Your task to perform on an android device: see sites visited before in the chrome app Image 0: 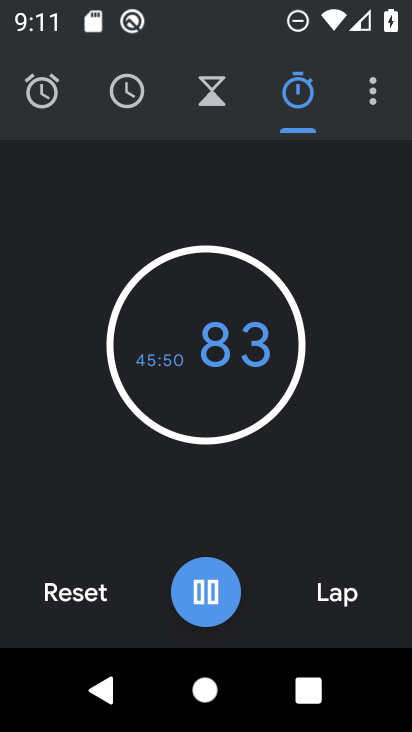
Step 0: press home button
Your task to perform on an android device: see sites visited before in the chrome app Image 1: 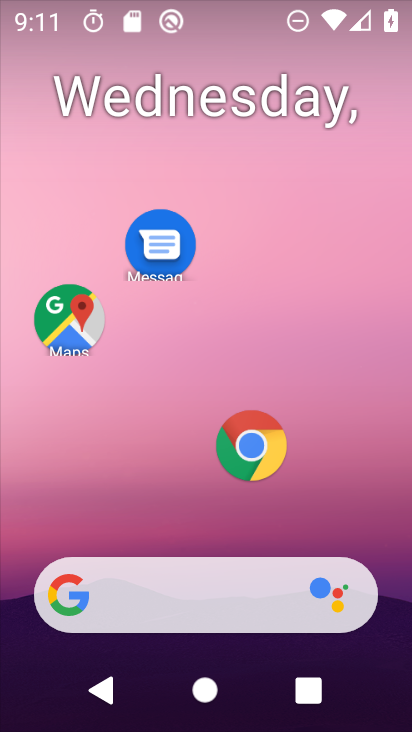
Step 1: click (249, 438)
Your task to perform on an android device: see sites visited before in the chrome app Image 2: 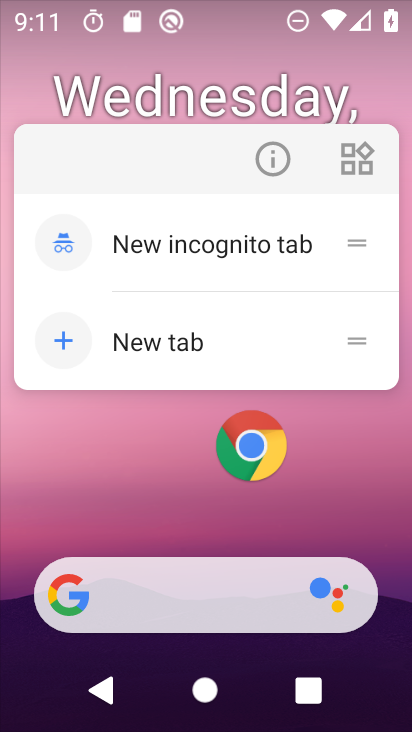
Step 2: click (253, 433)
Your task to perform on an android device: see sites visited before in the chrome app Image 3: 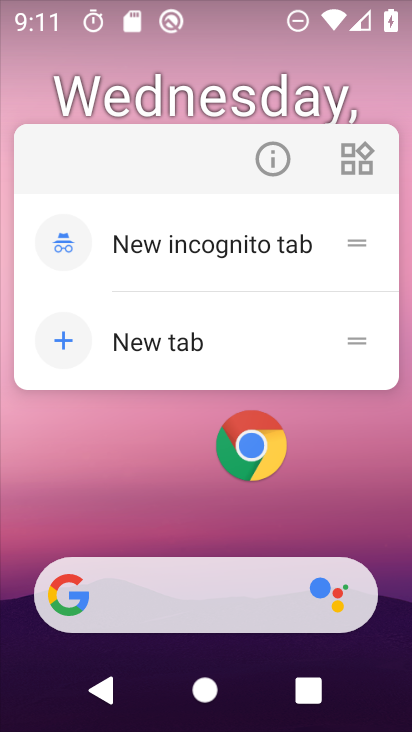
Step 3: click (254, 440)
Your task to perform on an android device: see sites visited before in the chrome app Image 4: 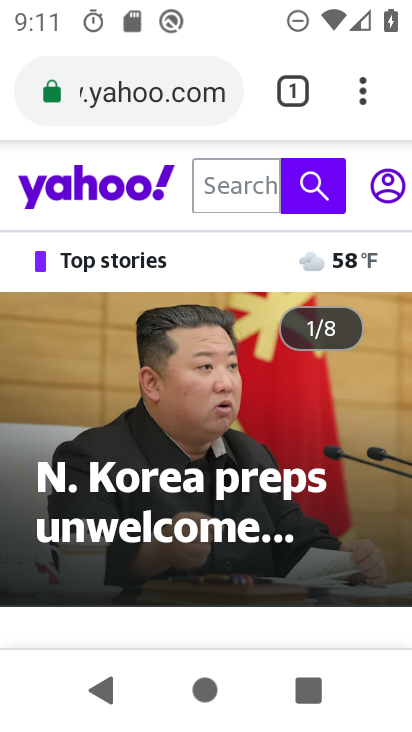
Step 4: click (361, 78)
Your task to perform on an android device: see sites visited before in the chrome app Image 5: 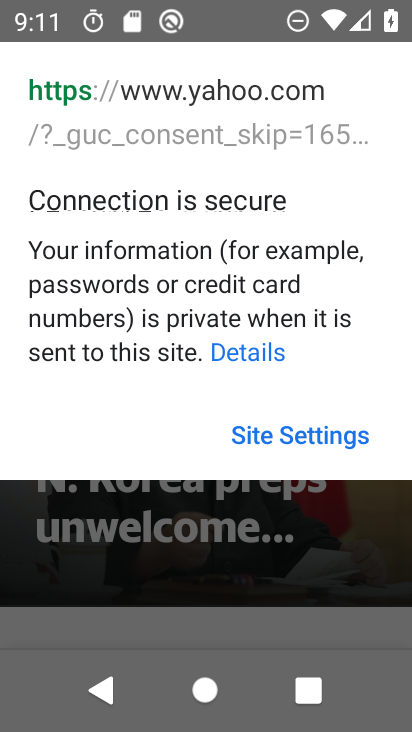
Step 5: click (219, 513)
Your task to perform on an android device: see sites visited before in the chrome app Image 6: 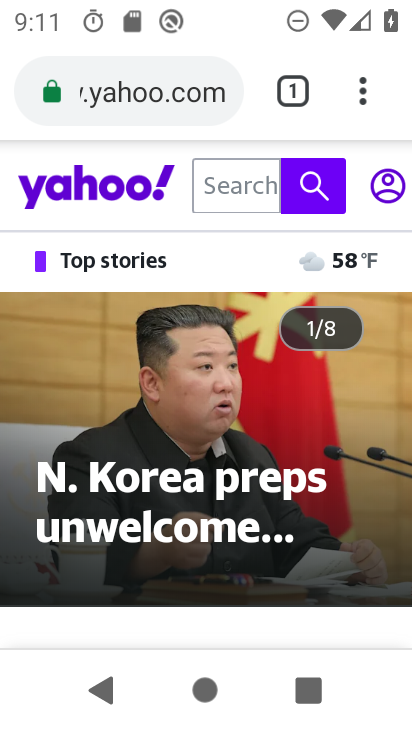
Step 6: click (365, 82)
Your task to perform on an android device: see sites visited before in the chrome app Image 7: 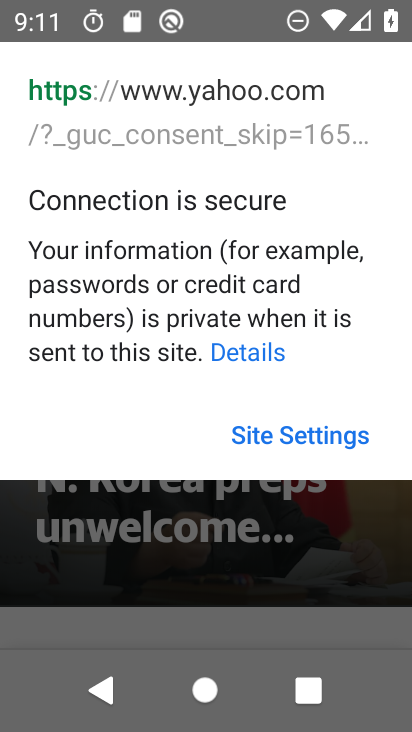
Step 7: click (173, 530)
Your task to perform on an android device: see sites visited before in the chrome app Image 8: 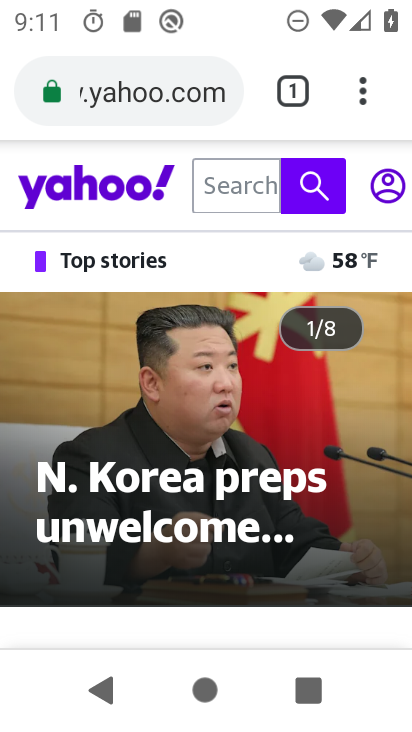
Step 8: click (367, 91)
Your task to perform on an android device: see sites visited before in the chrome app Image 9: 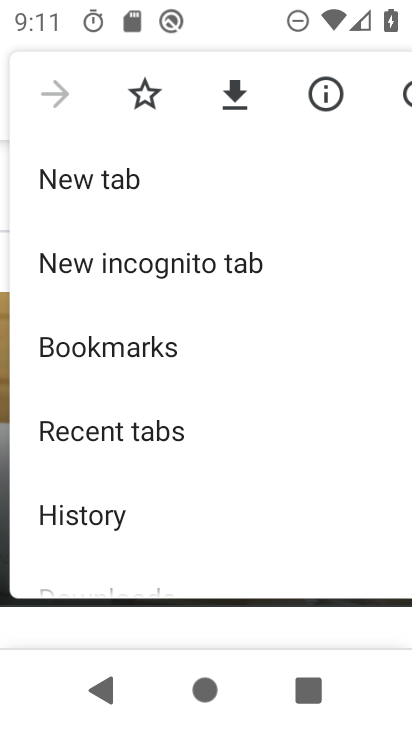
Step 9: click (154, 520)
Your task to perform on an android device: see sites visited before in the chrome app Image 10: 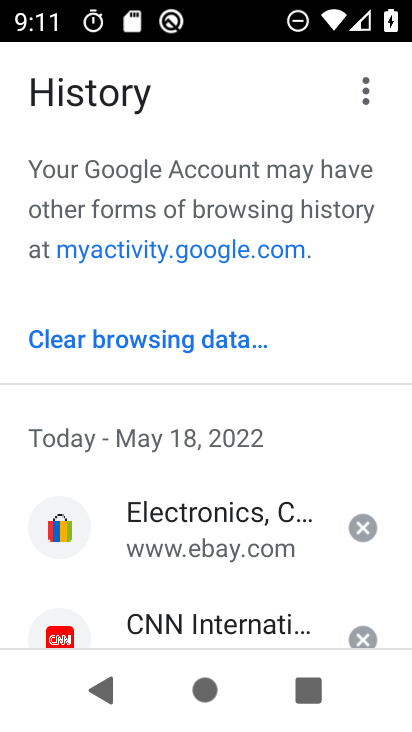
Step 10: task complete